Your task to perform on an android device: What is the recent news? Image 0: 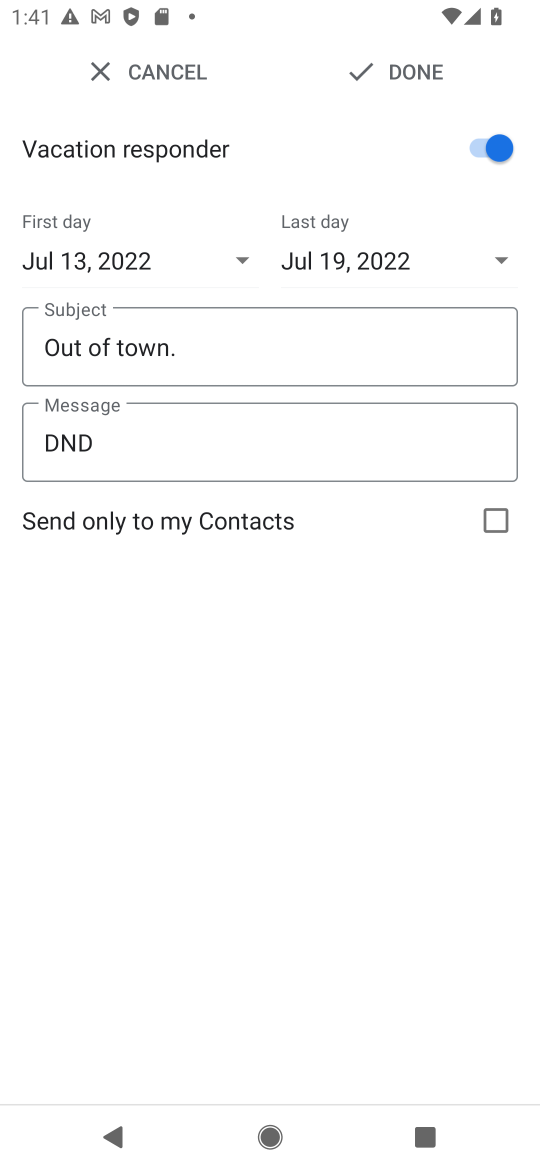
Step 0: press home button
Your task to perform on an android device: What is the recent news? Image 1: 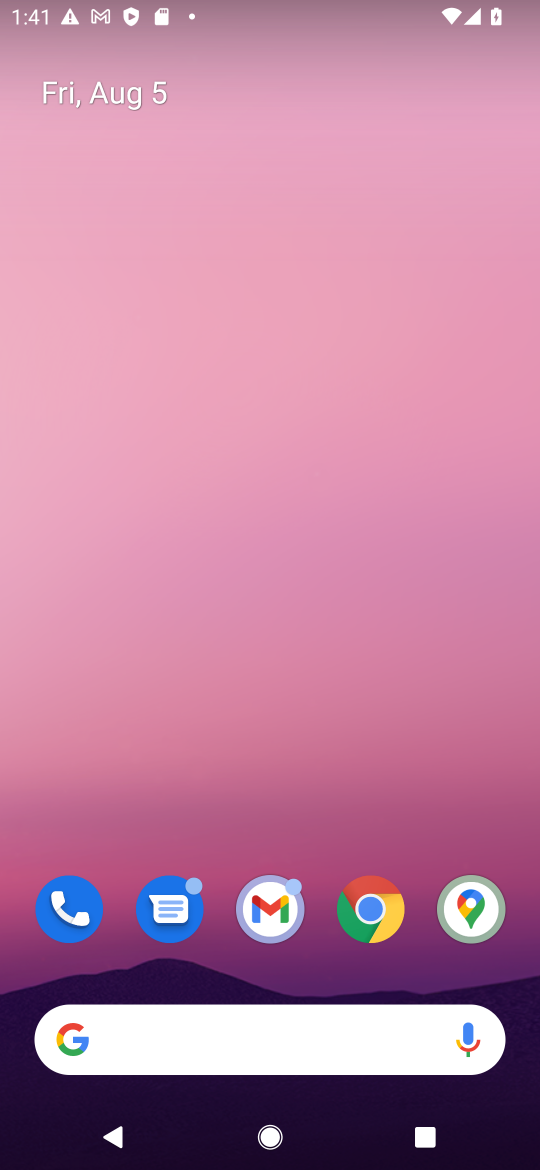
Step 1: task complete